Your task to perform on an android device: turn notification dots off Image 0: 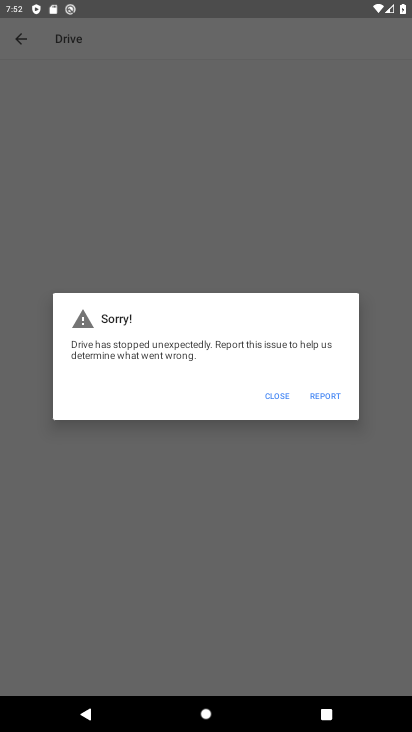
Step 0: drag from (225, 553) to (168, 101)
Your task to perform on an android device: turn notification dots off Image 1: 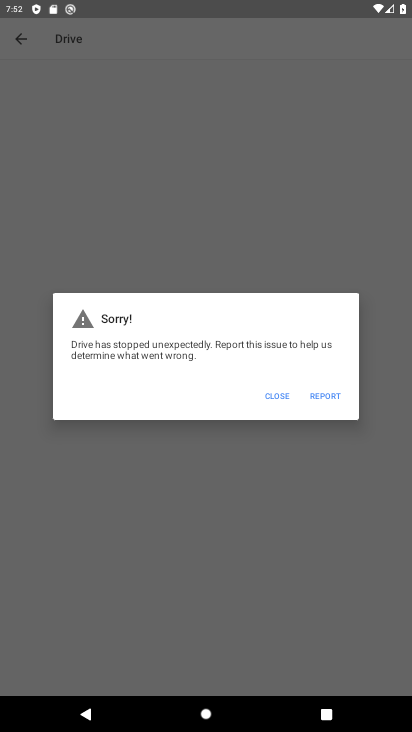
Step 1: press home button
Your task to perform on an android device: turn notification dots off Image 2: 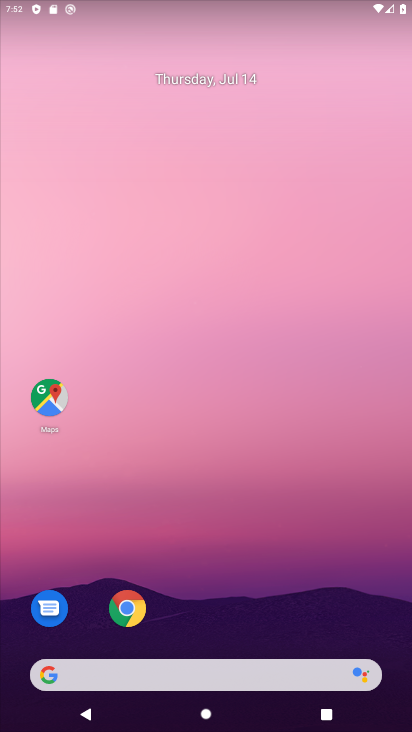
Step 2: drag from (254, 588) to (213, 100)
Your task to perform on an android device: turn notification dots off Image 3: 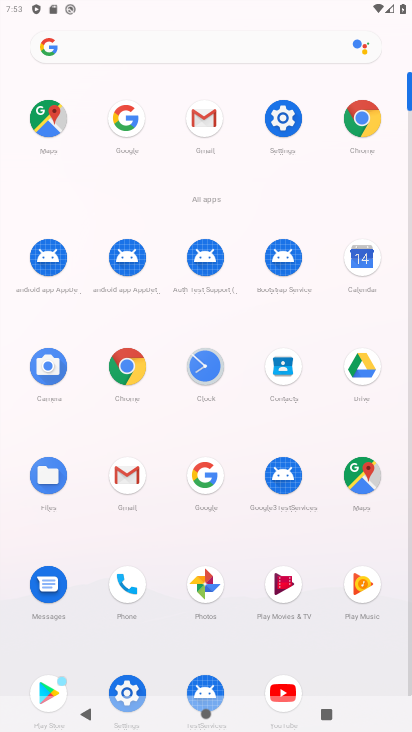
Step 3: click (281, 112)
Your task to perform on an android device: turn notification dots off Image 4: 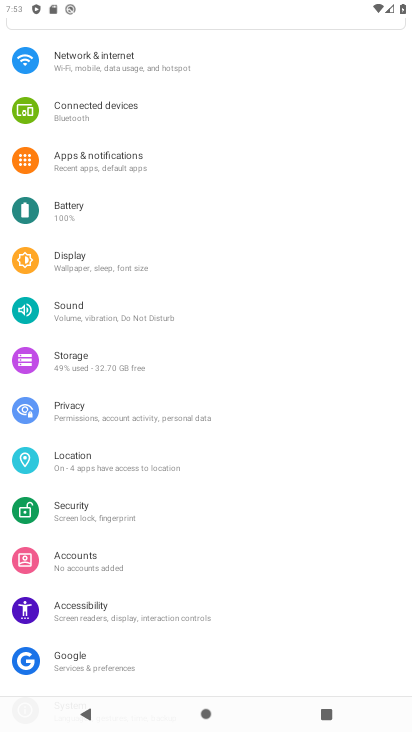
Step 4: click (108, 155)
Your task to perform on an android device: turn notification dots off Image 5: 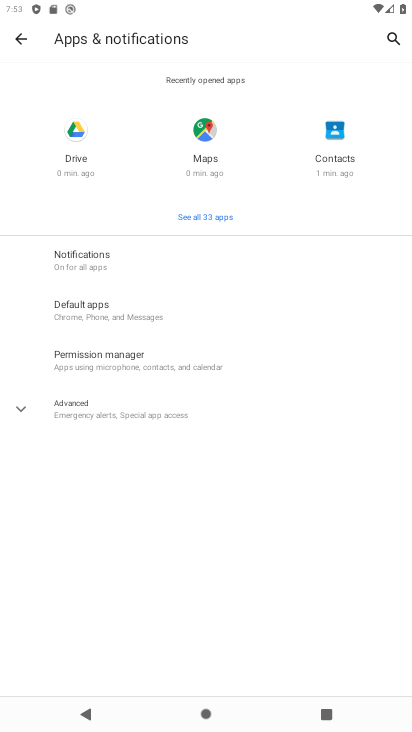
Step 5: click (70, 254)
Your task to perform on an android device: turn notification dots off Image 6: 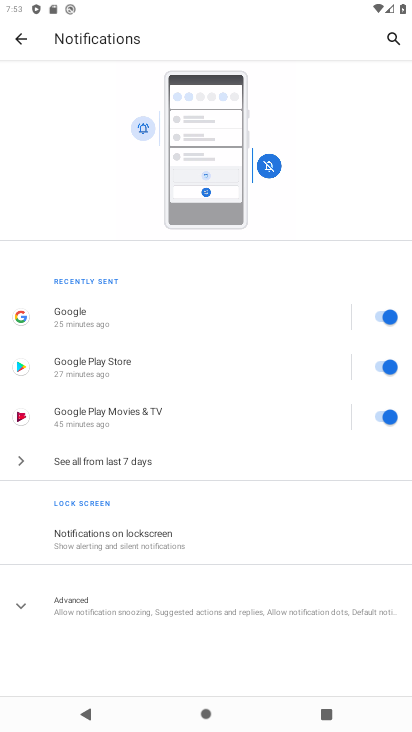
Step 6: click (24, 604)
Your task to perform on an android device: turn notification dots off Image 7: 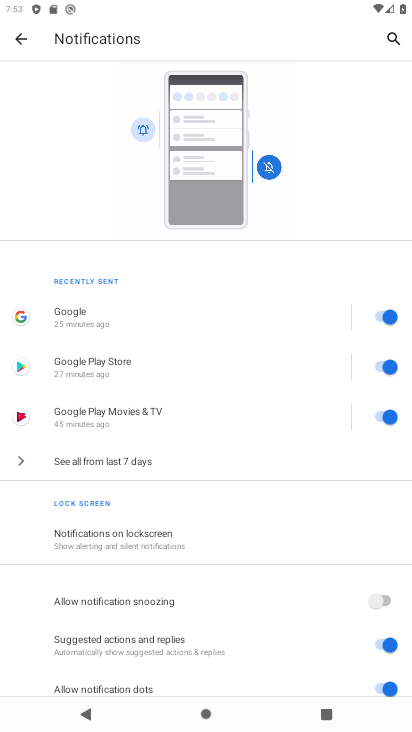
Step 7: click (393, 687)
Your task to perform on an android device: turn notification dots off Image 8: 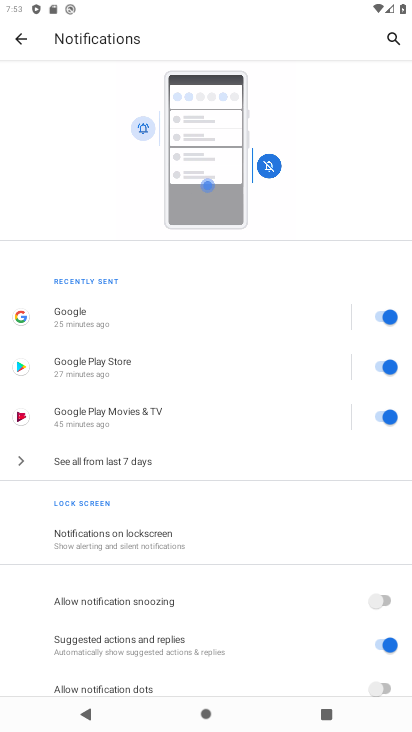
Step 8: task complete